Your task to perform on an android device: turn on improve location accuracy Image 0: 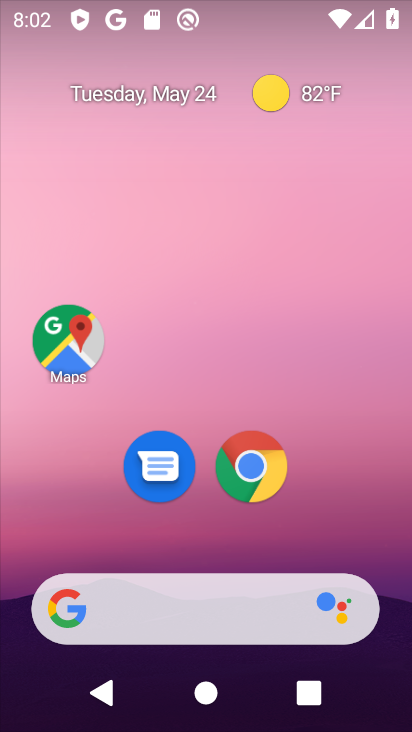
Step 0: drag from (220, 584) to (247, 54)
Your task to perform on an android device: turn on improve location accuracy Image 1: 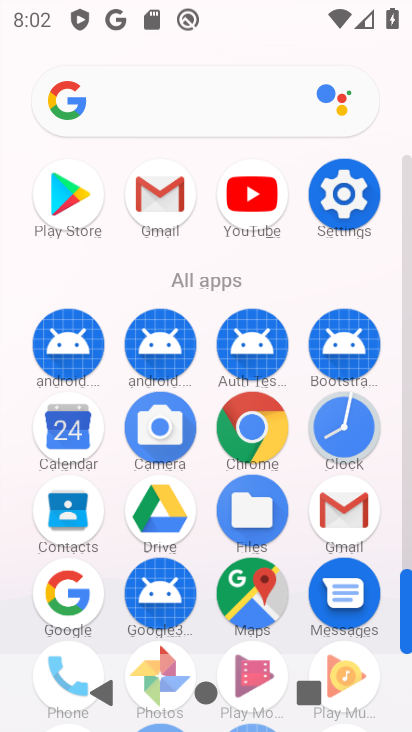
Step 1: click (343, 201)
Your task to perform on an android device: turn on improve location accuracy Image 2: 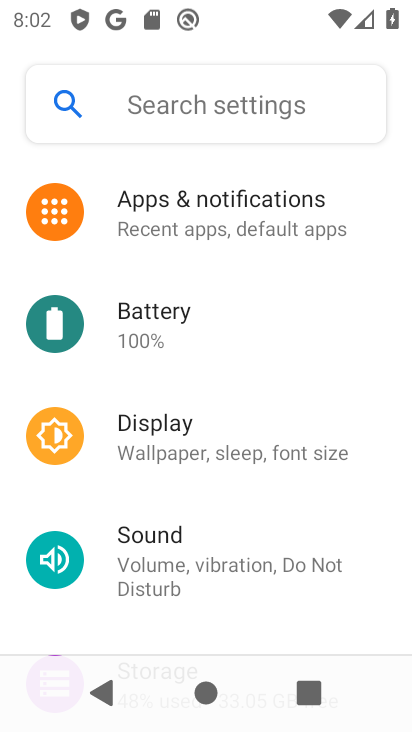
Step 2: drag from (175, 585) to (241, 179)
Your task to perform on an android device: turn on improve location accuracy Image 3: 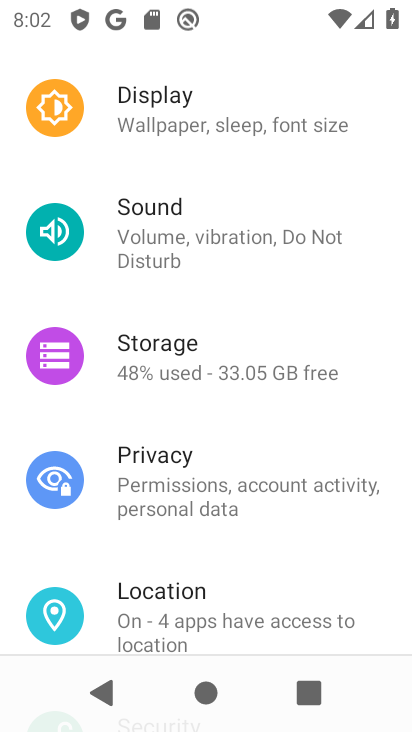
Step 3: click (178, 605)
Your task to perform on an android device: turn on improve location accuracy Image 4: 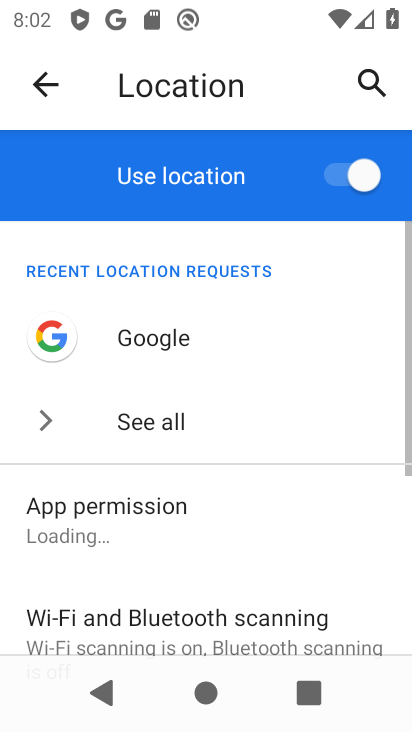
Step 4: drag from (183, 600) to (184, 226)
Your task to perform on an android device: turn on improve location accuracy Image 5: 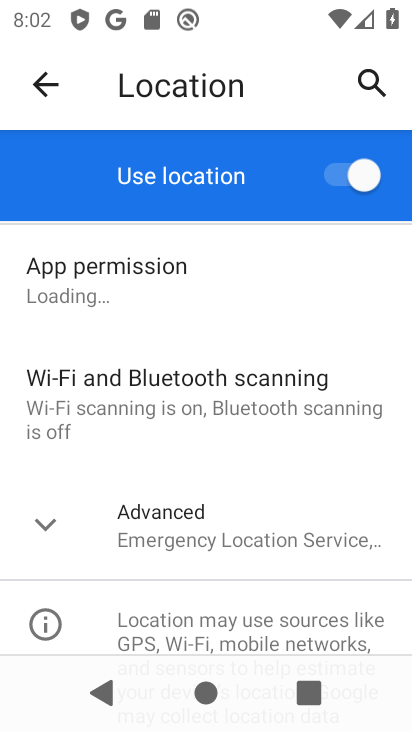
Step 5: click (176, 524)
Your task to perform on an android device: turn on improve location accuracy Image 6: 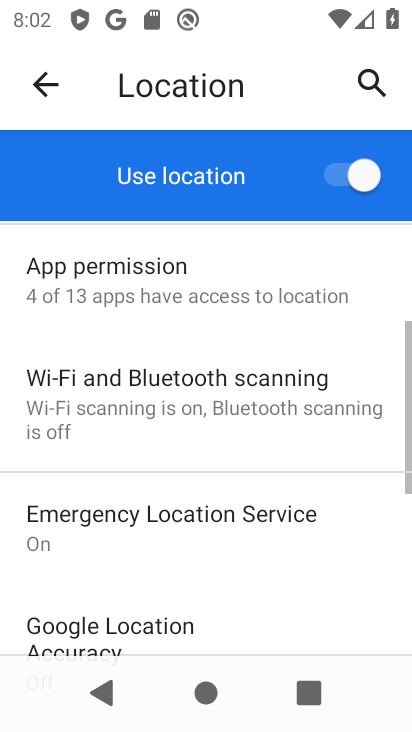
Step 6: drag from (256, 607) to (307, 264)
Your task to perform on an android device: turn on improve location accuracy Image 7: 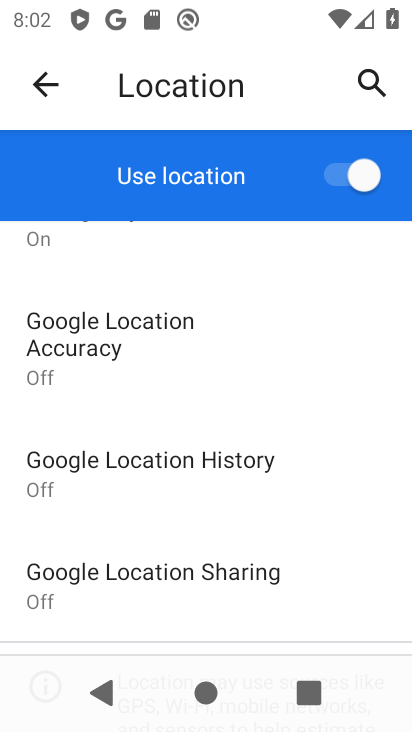
Step 7: click (202, 475)
Your task to perform on an android device: turn on improve location accuracy Image 8: 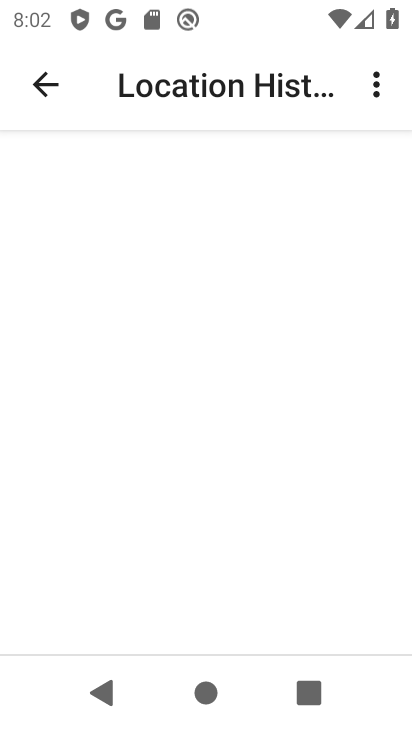
Step 8: click (40, 90)
Your task to perform on an android device: turn on improve location accuracy Image 9: 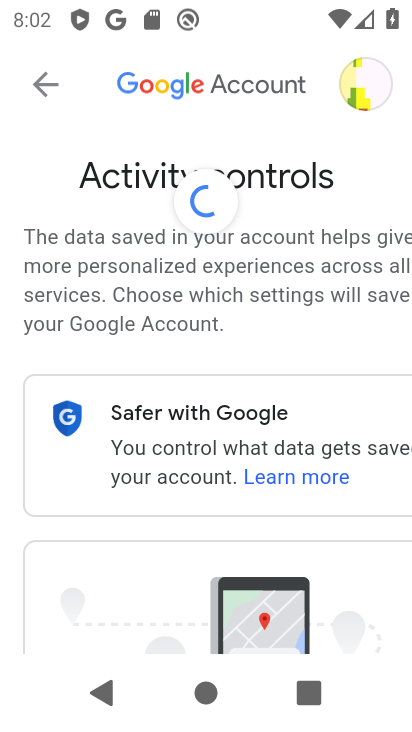
Step 9: click (39, 77)
Your task to perform on an android device: turn on improve location accuracy Image 10: 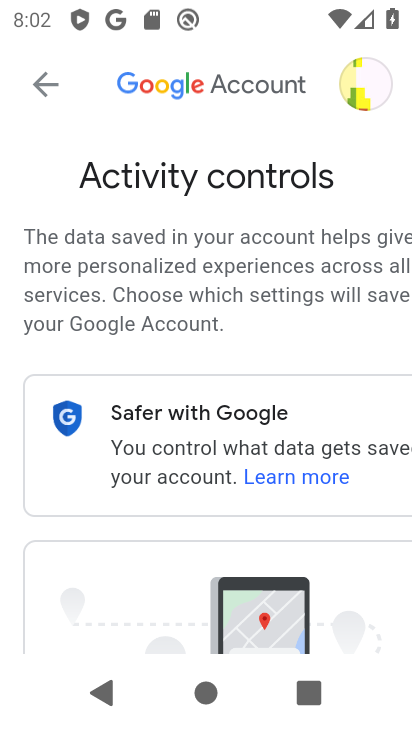
Step 10: click (54, 92)
Your task to perform on an android device: turn on improve location accuracy Image 11: 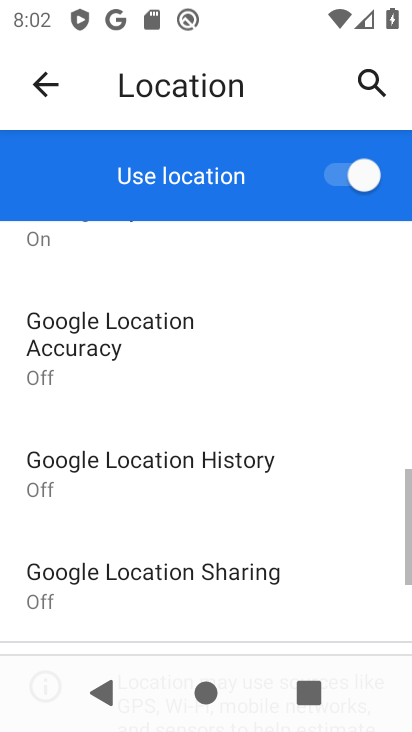
Step 11: drag from (191, 587) to (212, 258)
Your task to perform on an android device: turn on improve location accuracy Image 12: 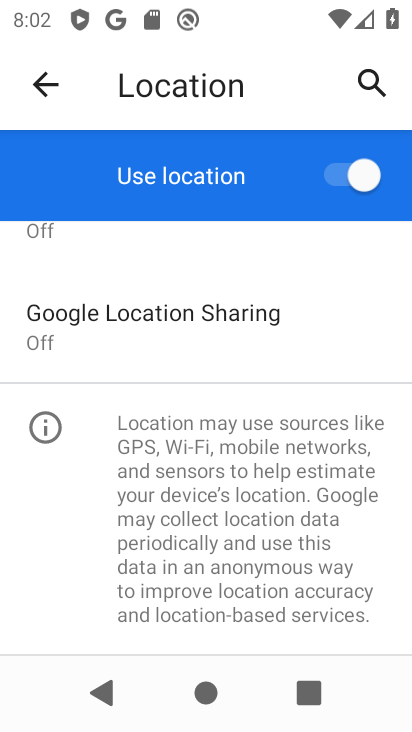
Step 12: drag from (218, 263) to (251, 522)
Your task to perform on an android device: turn on improve location accuracy Image 13: 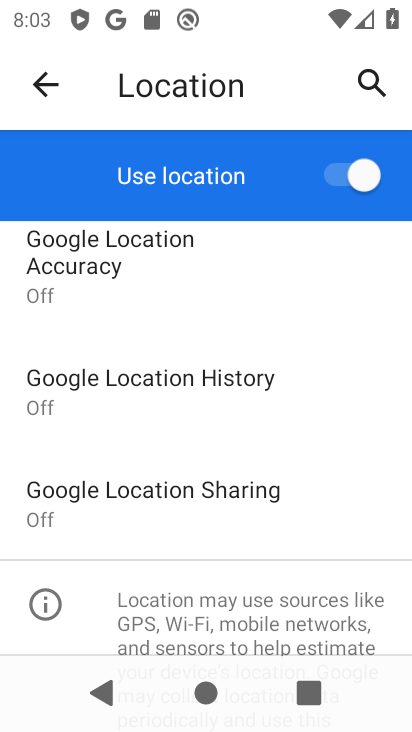
Step 13: click (76, 274)
Your task to perform on an android device: turn on improve location accuracy Image 14: 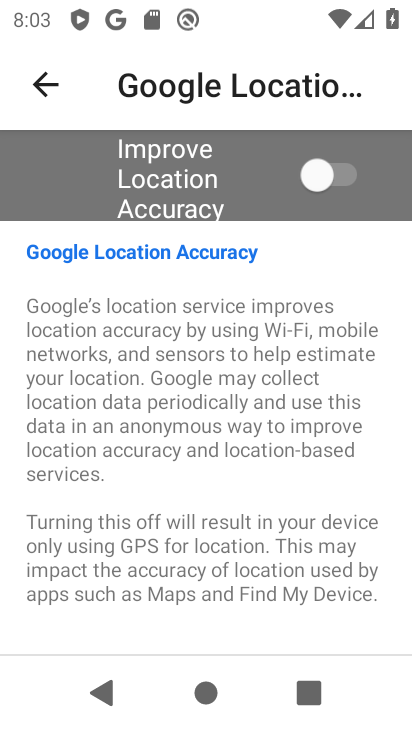
Step 14: click (340, 170)
Your task to perform on an android device: turn on improve location accuracy Image 15: 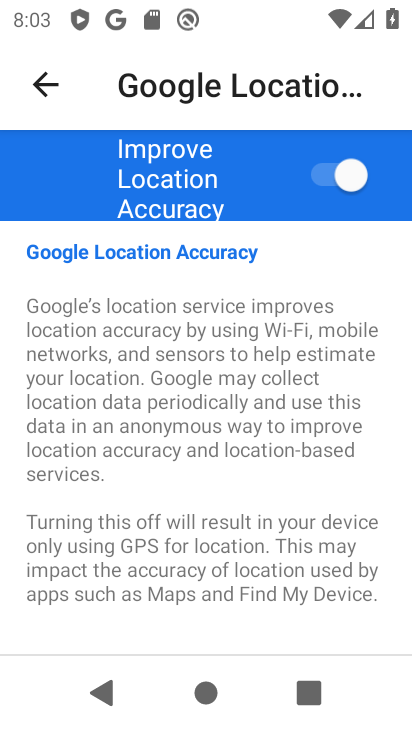
Step 15: task complete